Your task to perform on an android device: Open Maps and search for coffee Image 0: 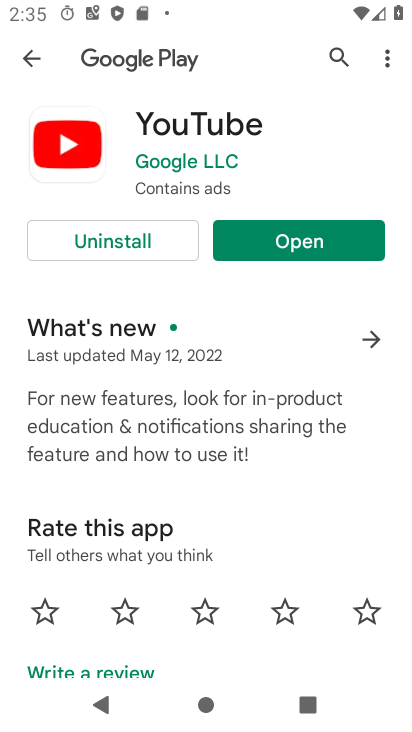
Step 0: press home button
Your task to perform on an android device: Open Maps and search for coffee Image 1: 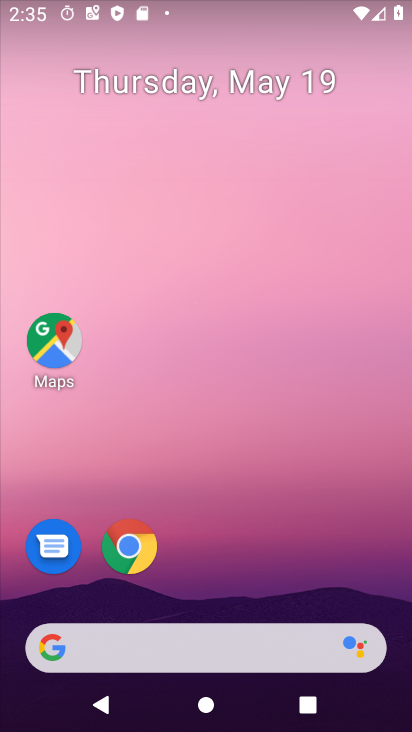
Step 1: click (62, 323)
Your task to perform on an android device: Open Maps and search for coffee Image 2: 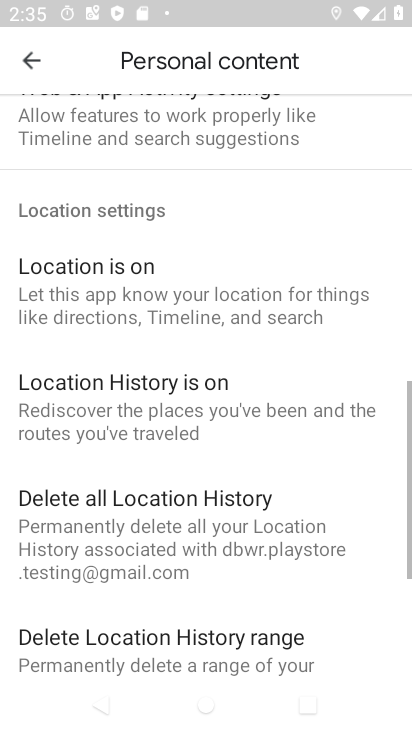
Step 2: click (50, 61)
Your task to perform on an android device: Open Maps and search for coffee Image 3: 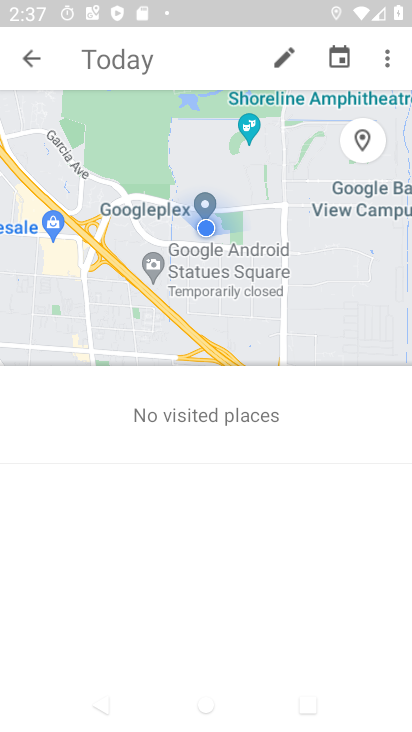
Step 3: click (34, 48)
Your task to perform on an android device: Open Maps and search for coffee Image 4: 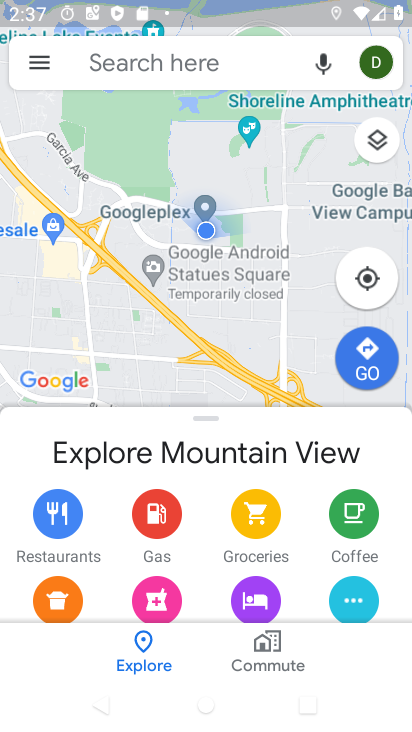
Step 4: click (133, 71)
Your task to perform on an android device: Open Maps and search for coffee Image 5: 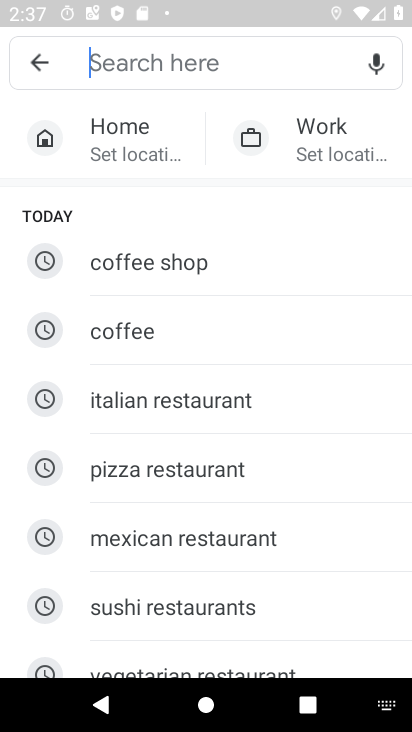
Step 5: click (158, 341)
Your task to perform on an android device: Open Maps and search for coffee Image 6: 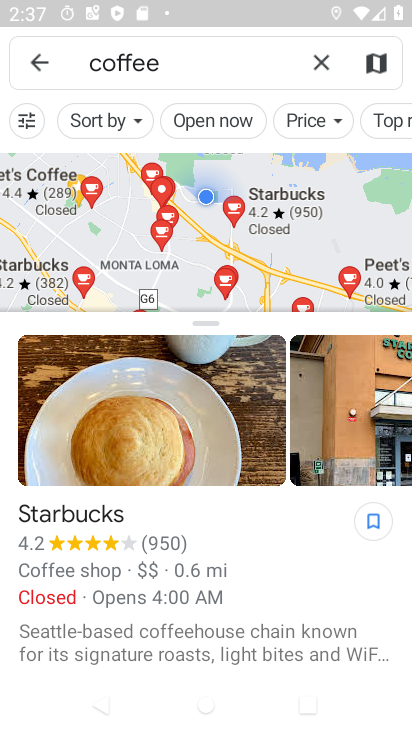
Step 6: task complete